Your task to perform on an android device: Toggle the flashlight Image 0: 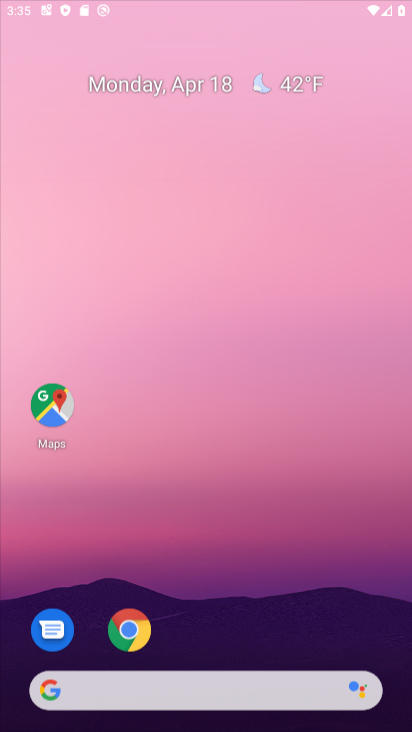
Step 0: click (378, 93)
Your task to perform on an android device: Toggle the flashlight Image 1: 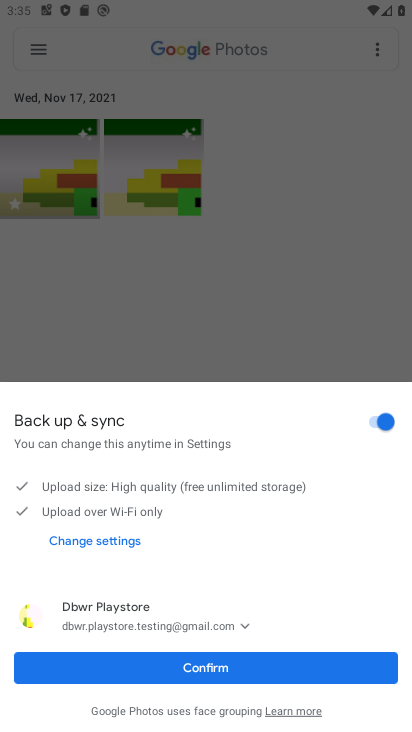
Step 1: press home button
Your task to perform on an android device: Toggle the flashlight Image 2: 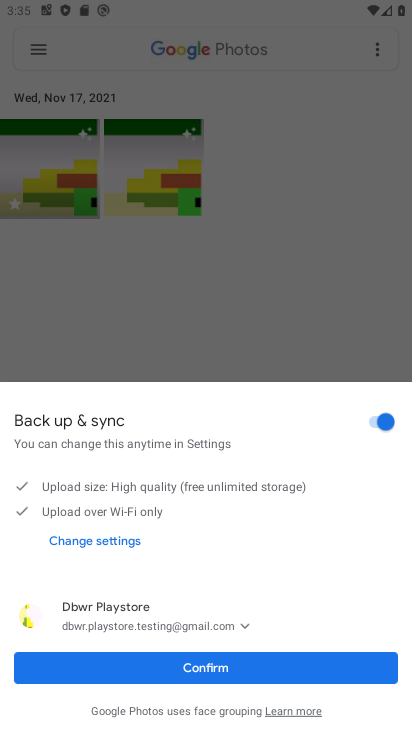
Step 2: press home button
Your task to perform on an android device: Toggle the flashlight Image 3: 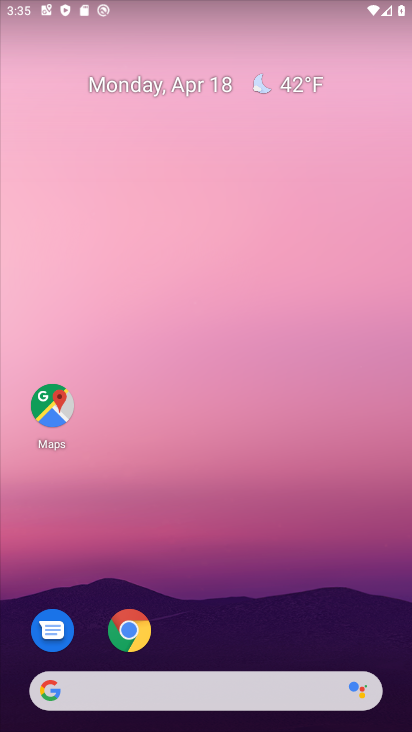
Step 3: drag from (349, 21) to (364, 492)
Your task to perform on an android device: Toggle the flashlight Image 4: 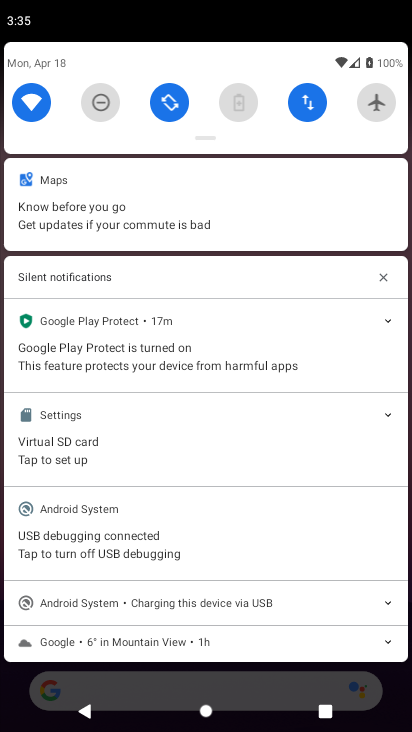
Step 4: drag from (209, 125) to (223, 551)
Your task to perform on an android device: Toggle the flashlight Image 5: 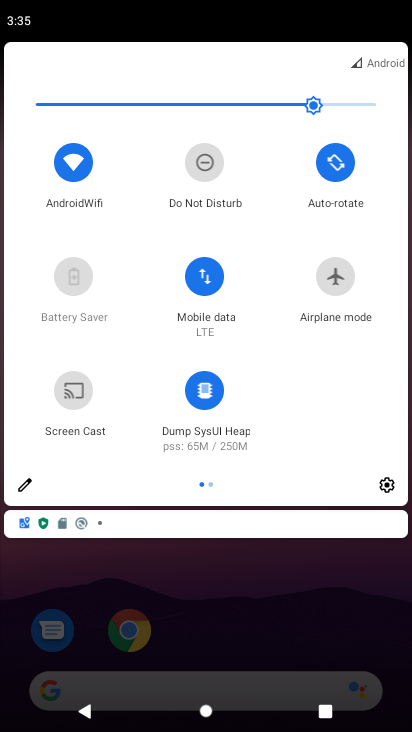
Step 5: click (26, 482)
Your task to perform on an android device: Toggle the flashlight Image 6: 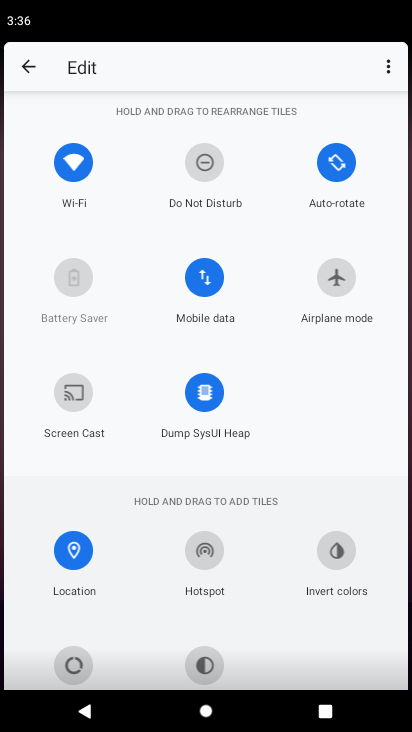
Step 6: task complete